Your task to perform on an android device: check battery use Image 0: 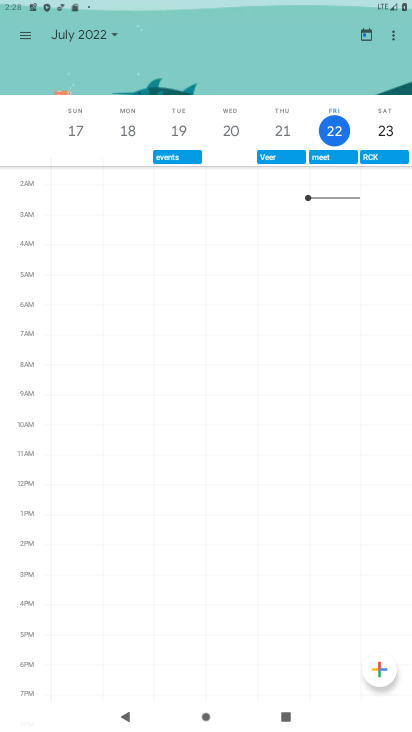
Step 0: press home button
Your task to perform on an android device: check battery use Image 1: 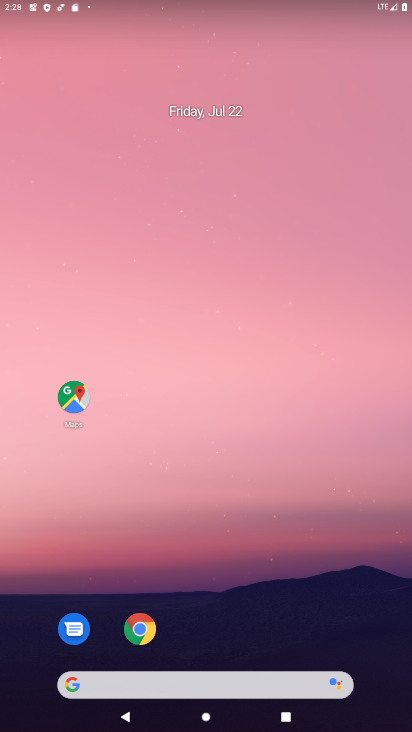
Step 1: drag from (216, 686) to (270, 194)
Your task to perform on an android device: check battery use Image 2: 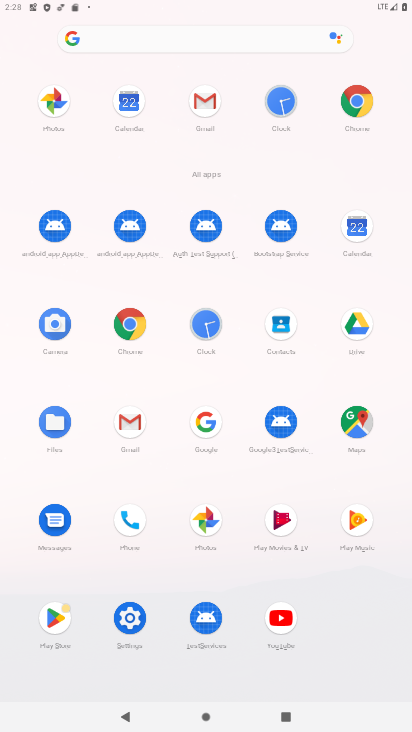
Step 2: click (128, 634)
Your task to perform on an android device: check battery use Image 3: 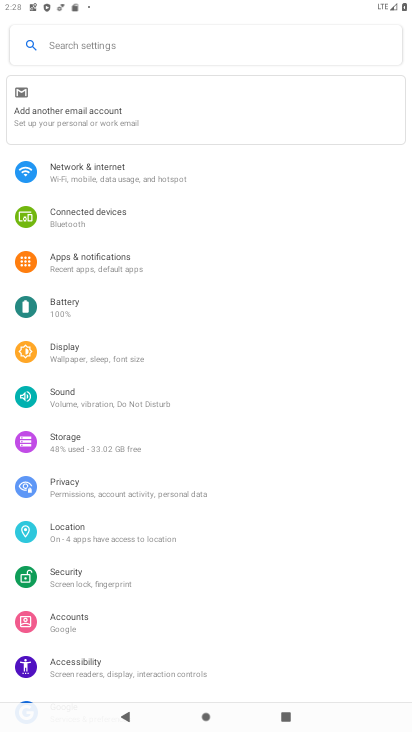
Step 3: click (83, 312)
Your task to perform on an android device: check battery use Image 4: 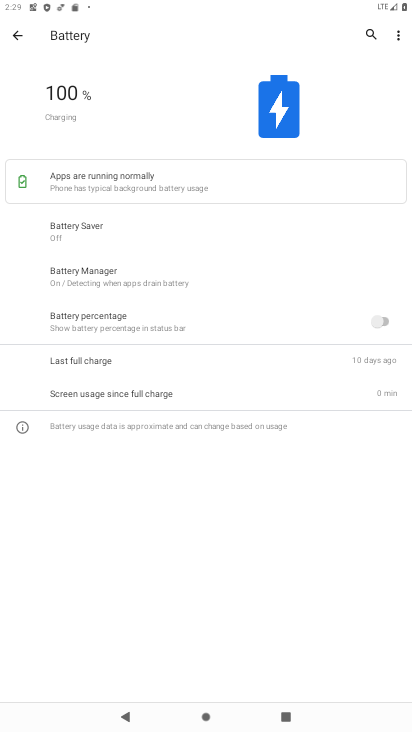
Step 4: click (403, 36)
Your task to perform on an android device: check battery use Image 5: 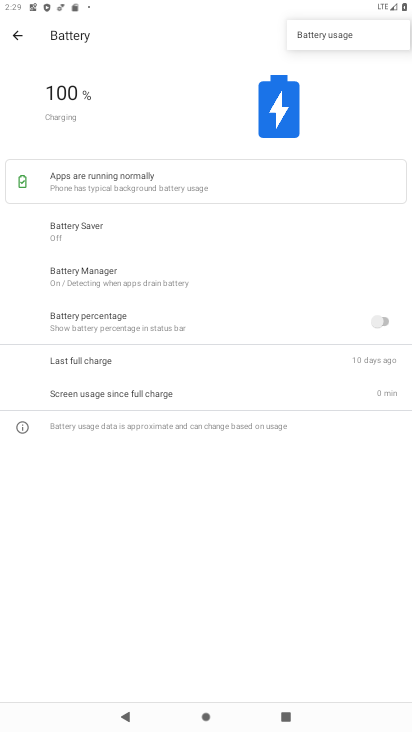
Step 5: click (341, 45)
Your task to perform on an android device: check battery use Image 6: 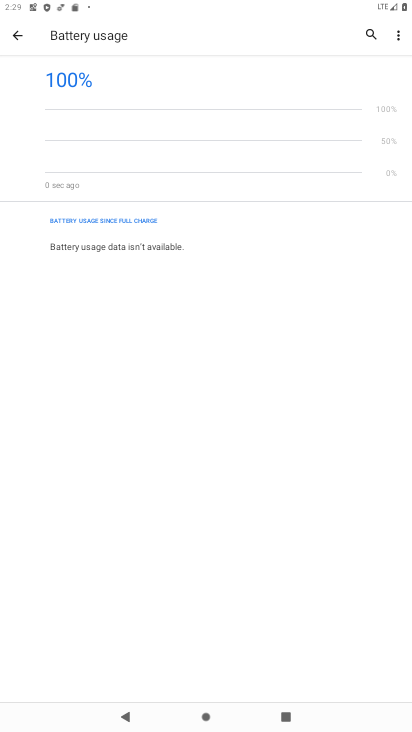
Step 6: task complete